Your task to perform on an android device: toggle javascript in the chrome app Image 0: 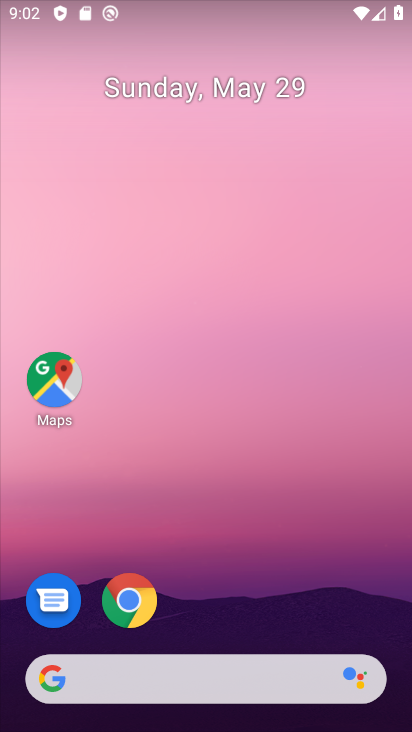
Step 0: click (121, 600)
Your task to perform on an android device: toggle javascript in the chrome app Image 1: 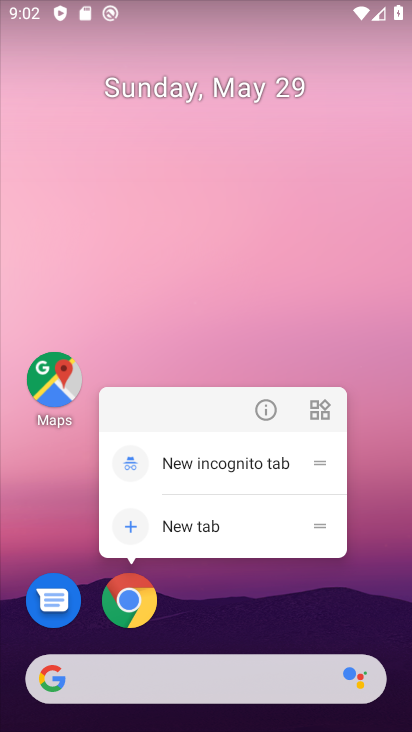
Step 1: click (129, 607)
Your task to perform on an android device: toggle javascript in the chrome app Image 2: 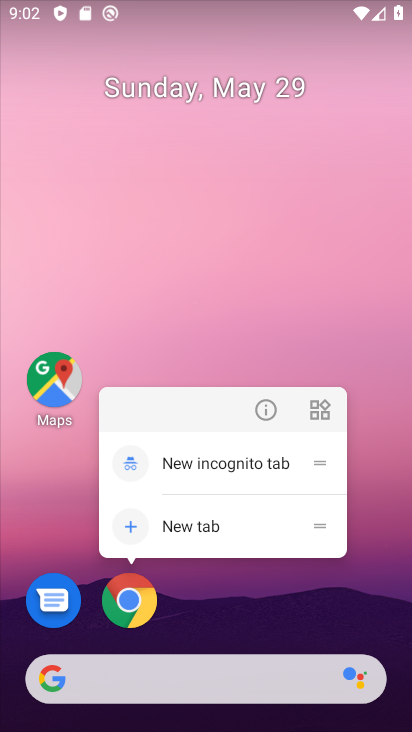
Step 2: click (129, 607)
Your task to perform on an android device: toggle javascript in the chrome app Image 3: 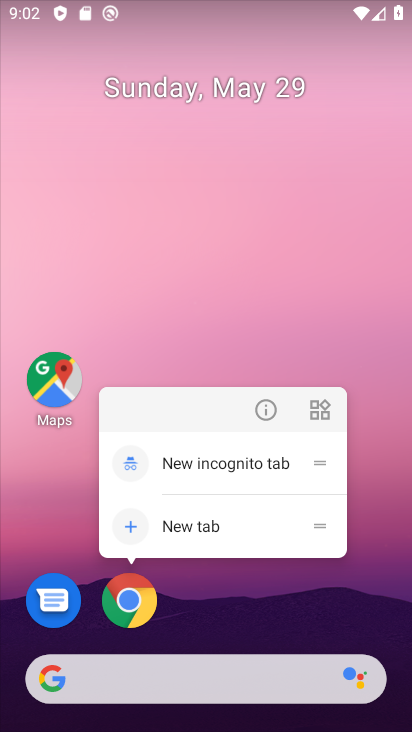
Step 3: click (129, 607)
Your task to perform on an android device: toggle javascript in the chrome app Image 4: 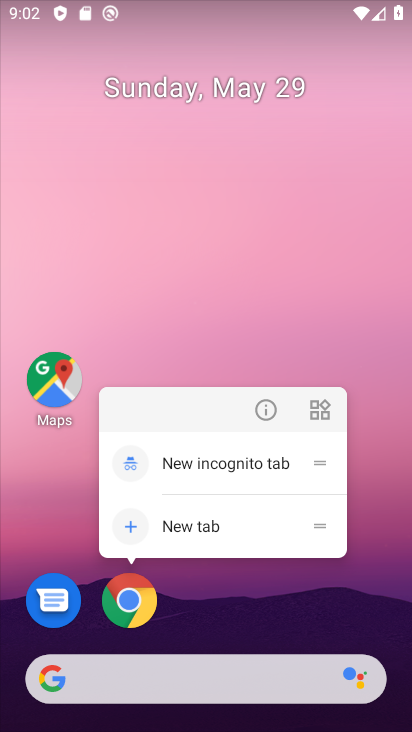
Step 4: click (244, 589)
Your task to perform on an android device: toggle javascript in the chrome app Image 5: 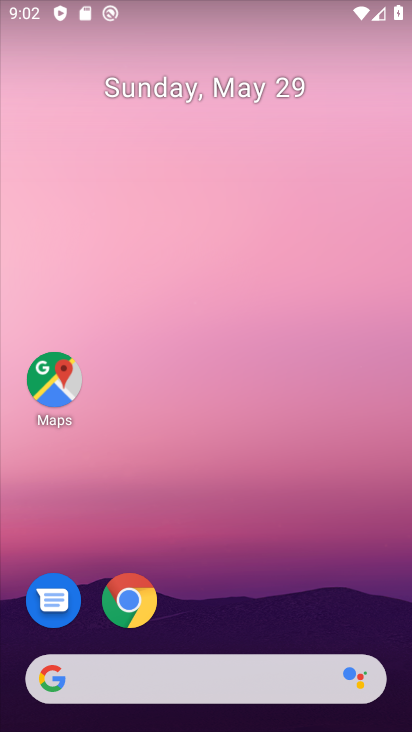
Step 5: drag from (277, 620) to (272, 51)
Your task to perform on an android device: toggle javascript in the chrome app Image 6: 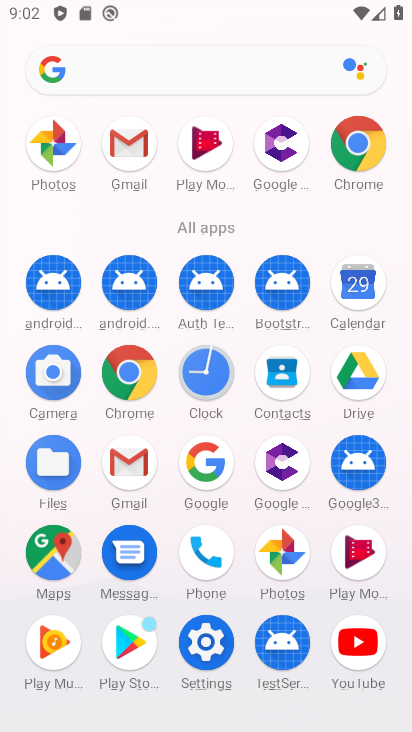
Step 6: click (132, 390)
Your task to perform on an android device: toggle javascript in the chrome app Image 7: 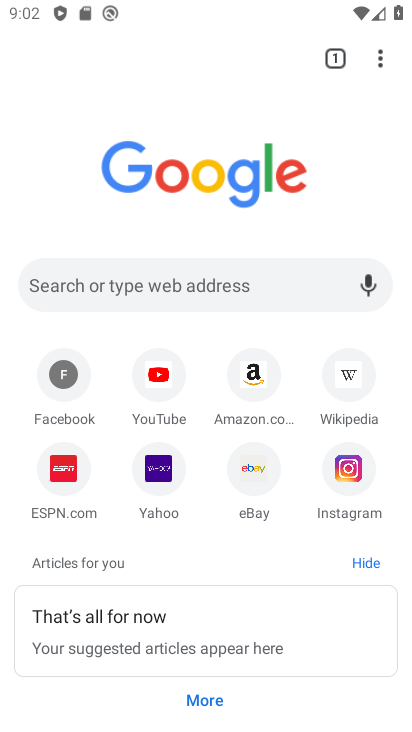
Step 7: drag from (378, 61) to (183, 503)
Your task to perform on an android device: toggle javascript in the chrome app Image 8: 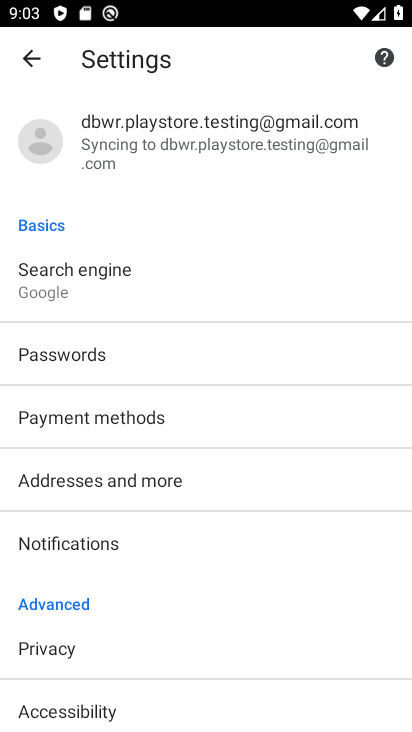
Step 8: drag from (204, 650) to (257, 183)
Your task to perform on an android device: toggle javascript in the chrome app Image 9: 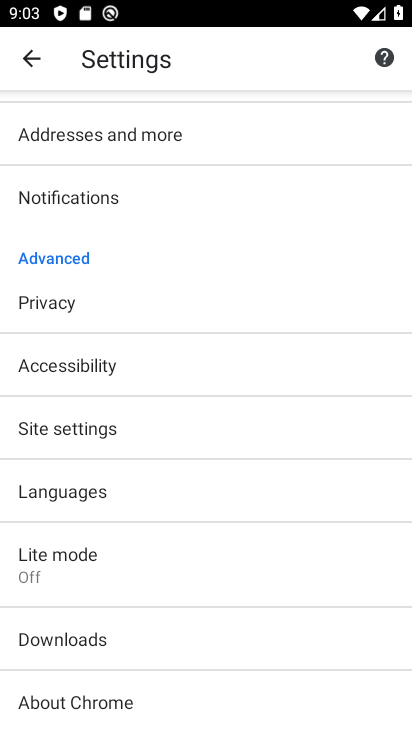
Step 9: click (51, 416)
Your task to perform on an android device: toggle javascript in the chrome app Image 10: 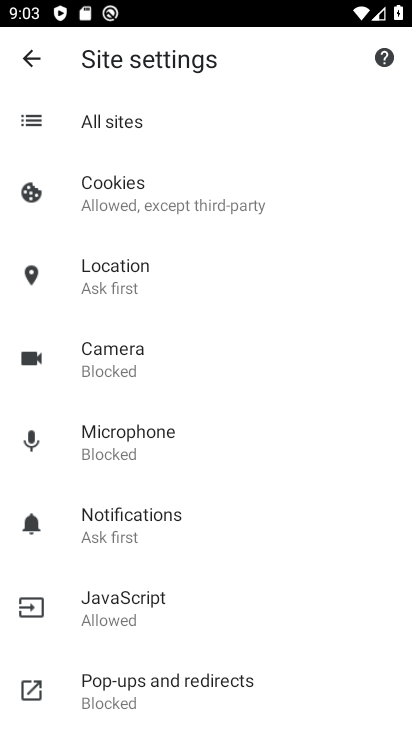
Step 10: click (115, 596)
Your task to perform on an android device: toggle javascript in the chrome app Image 11: 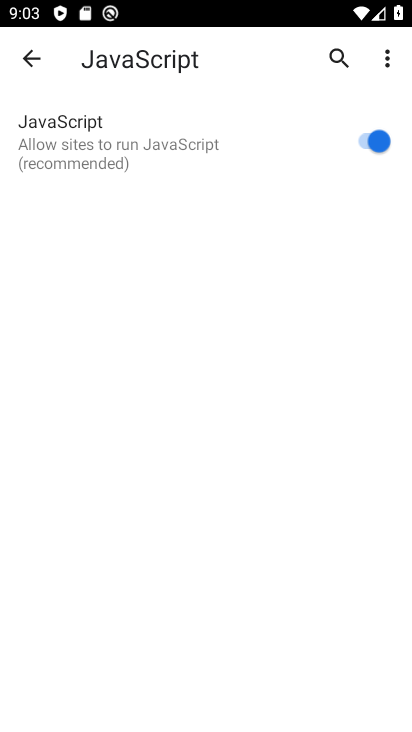
Step 11: click (367, 133)
Your task to perform on an android device: toggle javascript in the chrome app Image 12: 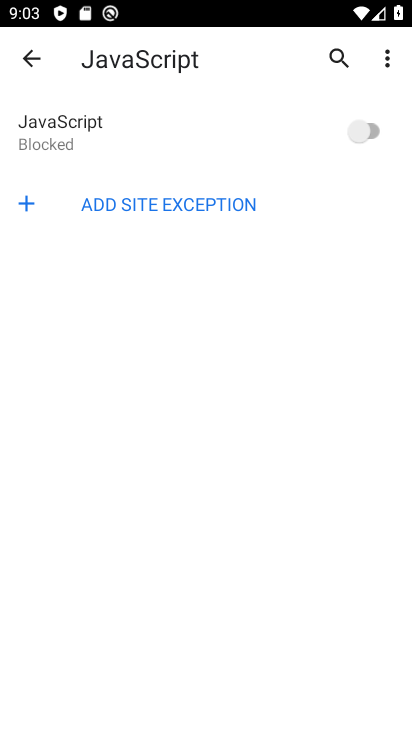
Step 12: task complete